Your task to perform on an android device: Open calendar and show me the third week of next month Image 0: 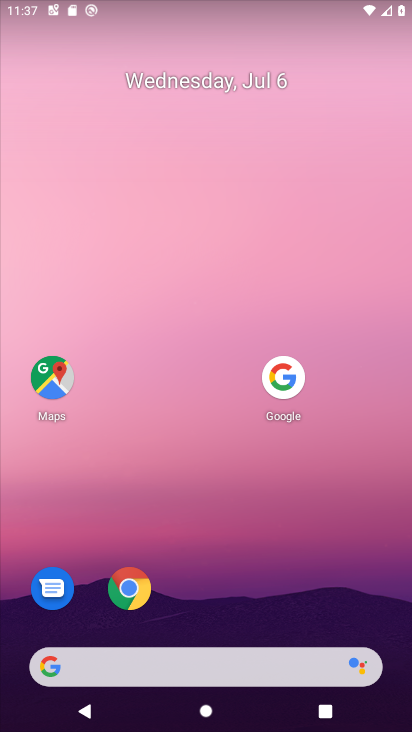
Step 0: drag from (147, 661) to (271, 125)
Your task to perform on an android device: Open calendar and show me the third week of next month Image 1: 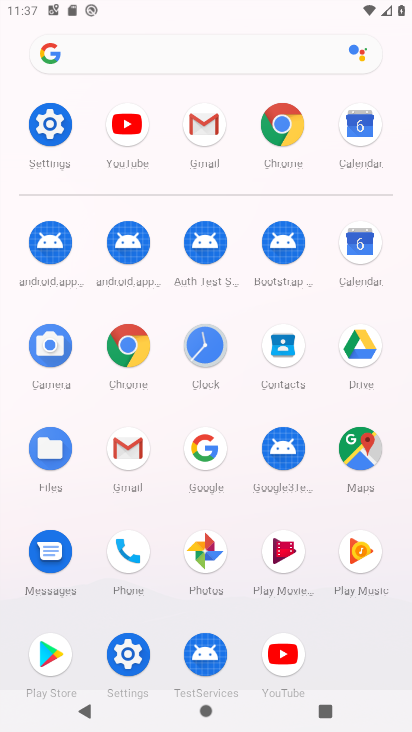
Step 1: click (353, 129)
Your task to perform on an android device: Open calendar and show me the third week of next month Image 2: 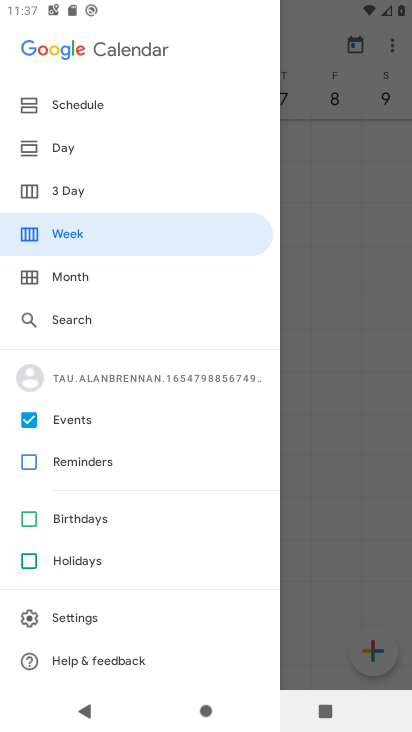
Step 2: drag from (294, 306) to (2, 363)
Your task to perform on an android device: Open calendar and show me the third week of next month Image 3: 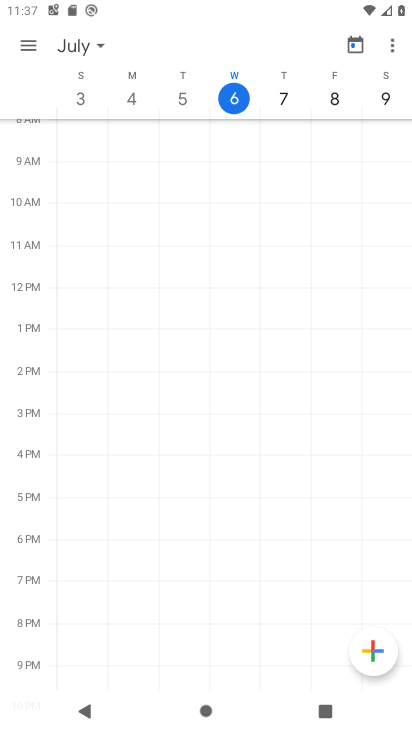
Step 3: click (88, 46)
Your task to perform on an android device: Open calendar and show me the third week of next month Image 4: 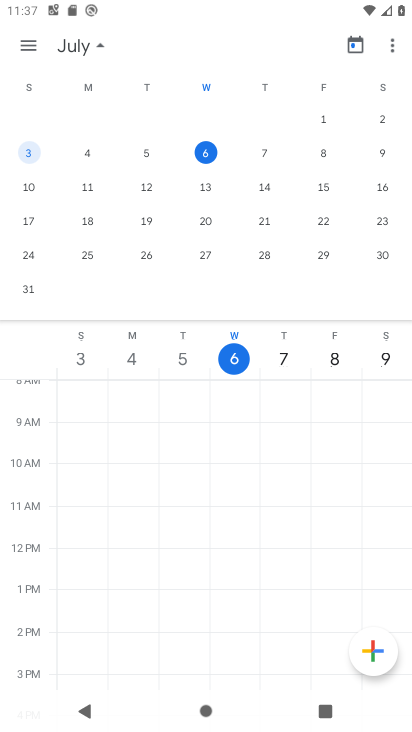
Step 4: drag from (337, 220) to (11, 191)
Your task to perform on an android device: Open calendar and show me the third week of next month Image 5: 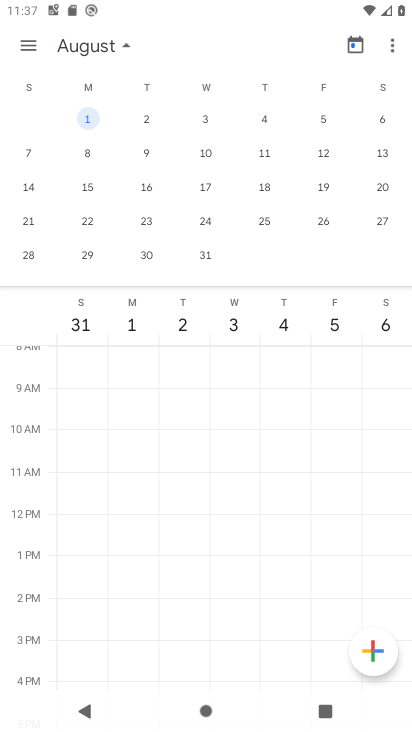
Step 5: click (32, 189)
Your task to perform on an android device: Open calendar and show me the third week of next month Image 6: 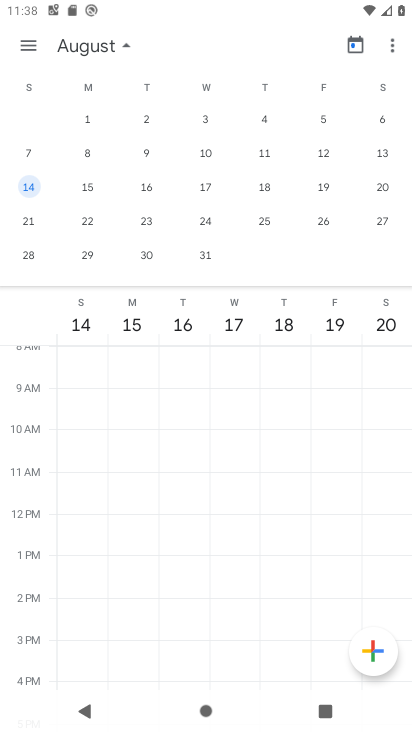
Step 6: click (33, 44)
Your task to perform on an android device: Open calendar and show me the third week of next month Image 7: 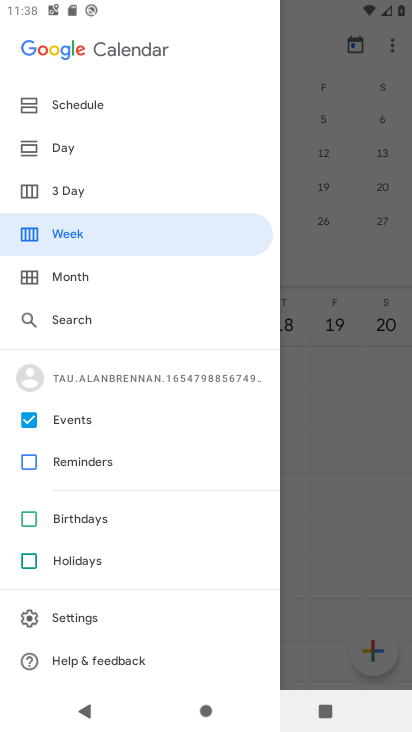
Step 7: click (89, 230)
Your task to perform on an android device: Open calendar and show me the third week of next month Image 8: 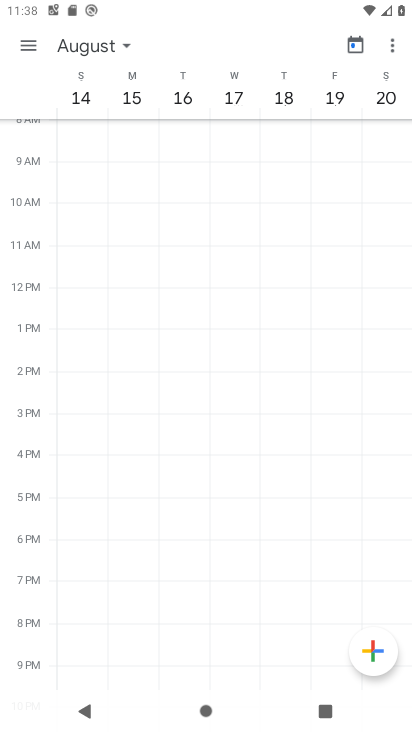
Step 8: task complete